Your task to perform on an android device: read, delete, or share a saved page in the chrome app Image 0: 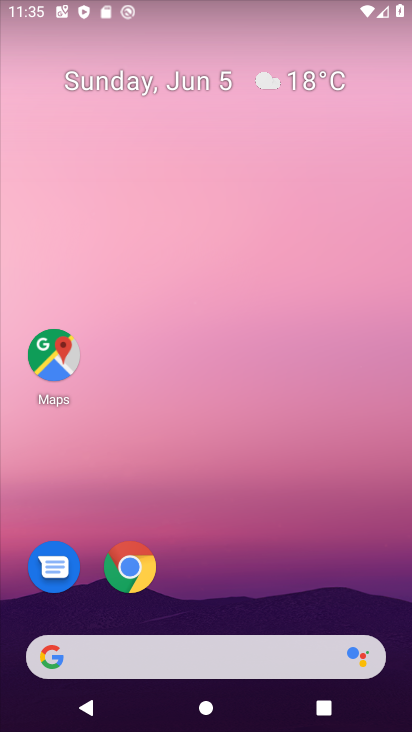
Step 0: click (142, 561)
Your task to perform on an android device: read, delete, or share a saved page in the chrome app Image 1: 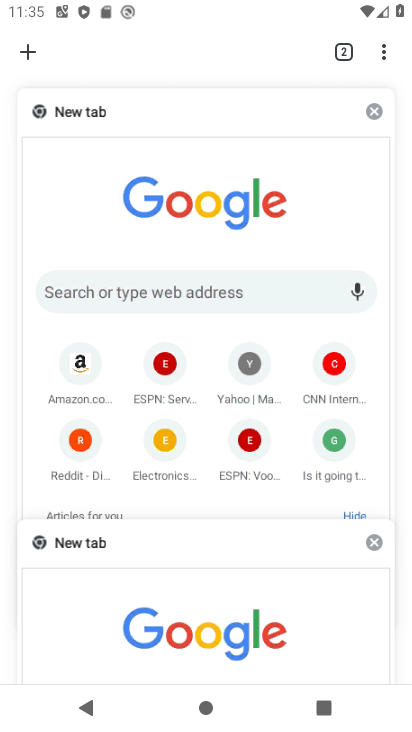
Step 1: click (382, 51)
Your task to perform on an android device: read, delete, or share a saved page in the chrome app Image 2: 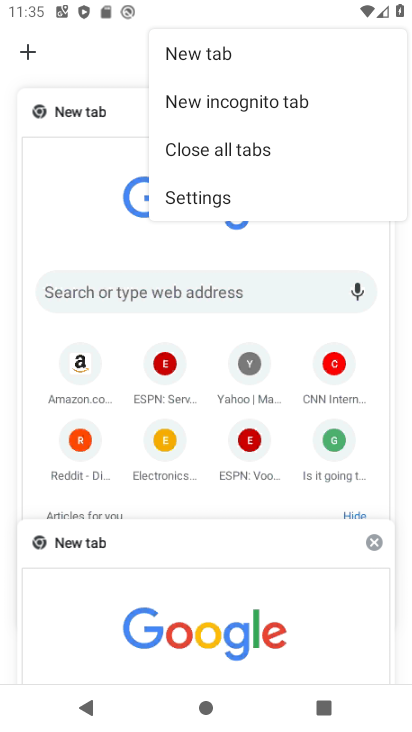
Step 2: click (79, 182)
Your task to perform on an android device: read, delete, or share a saved page in the chrome app Image 3: 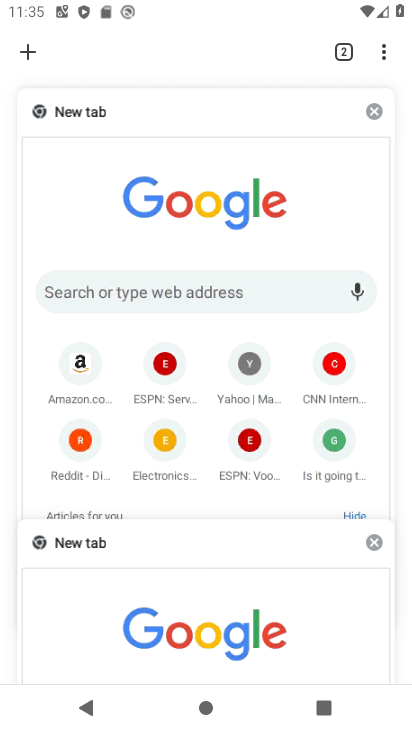
Step 3: click (278, 626)
Your task to perform on an android device: read, delete, or share a saved page in the chrome app Image 4: 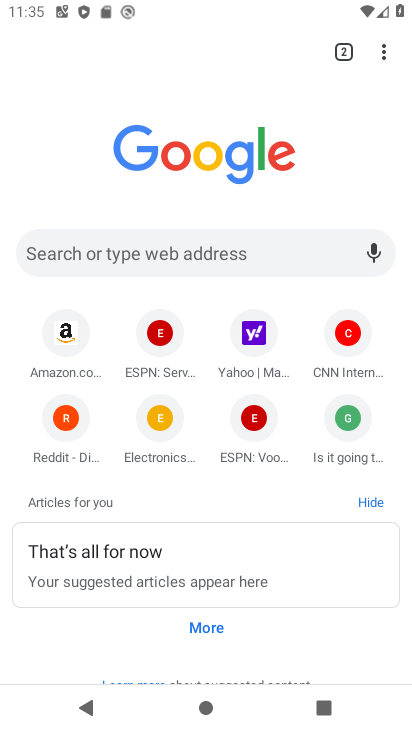
Step 4: click (377, 55)
Your task to perform on an android device: read, delete, or share a saved page in the chrome app Image 5: 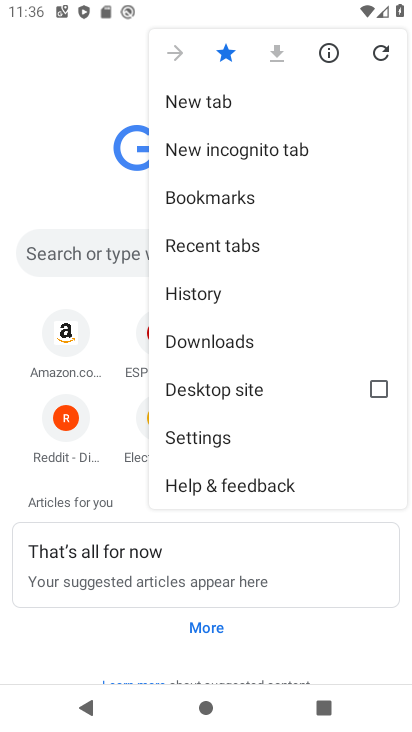
Step 5: click (234, 344)
Your task to perform on an android device: read, delete, or share a saved page in the chrome app Image 6: 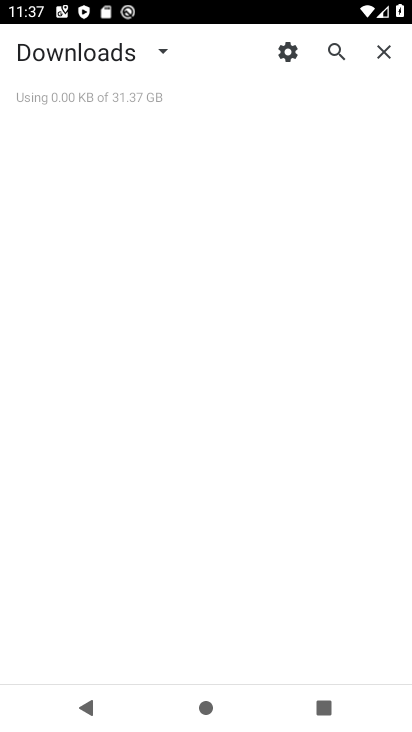
Step 6: task complete